Your task to perform on an android device: Show me the alarms in the clock app Image 0: 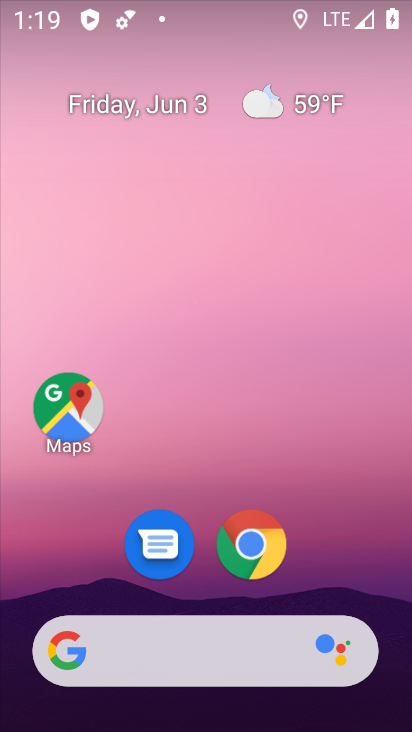
Step 0: drag from (202, 602) to (322, 9)
Your task to perform on an android device: Show me the alarms in the clock app Image 1: 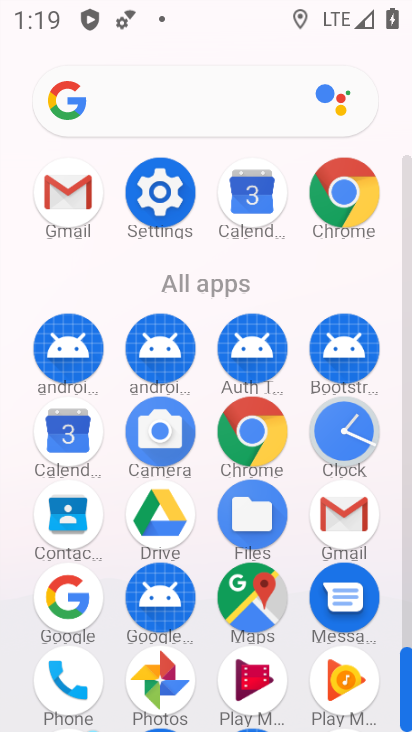
Step 1: click (331, 432)
Your task to perform on an android device: Show me the alarms in the clock app Image 2: 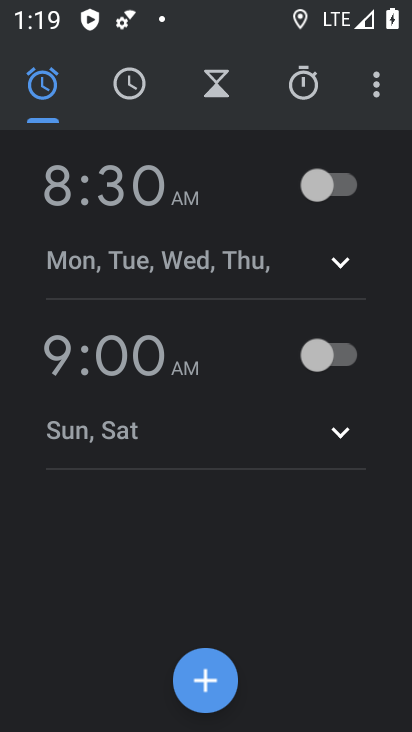
Step 2: click (355, 95)
Your task to perform on an android device: Show me the alarms in the clock app Image 3: 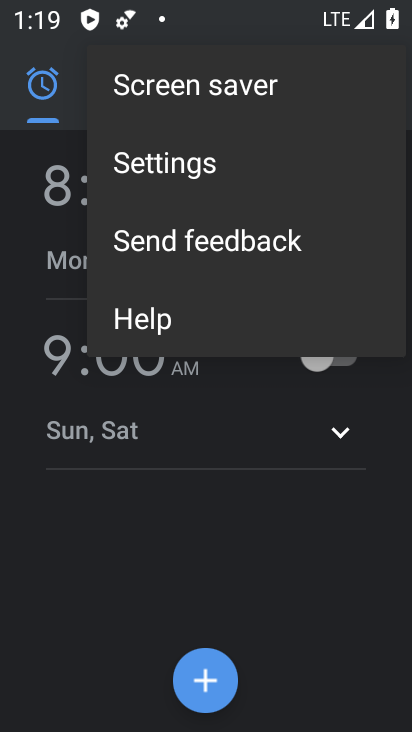
Step 3: click (323, 626)
Your task to perform on an android device: Show me the alarms in the clock app Image 4: 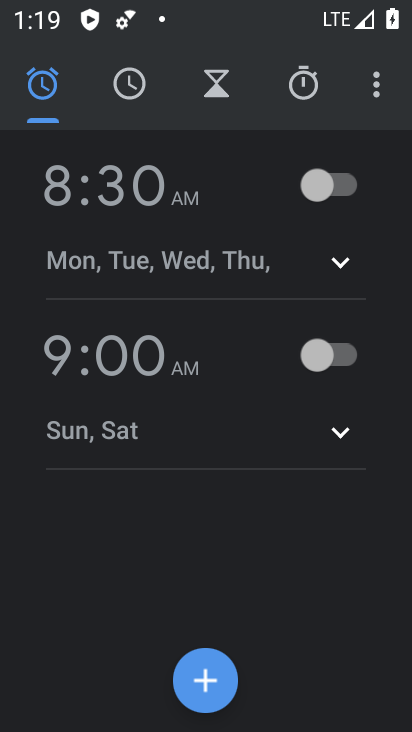
Step 4: click (190, 691)
Your task to perform on an android device: Show me the alarms in the clock app Image 5: 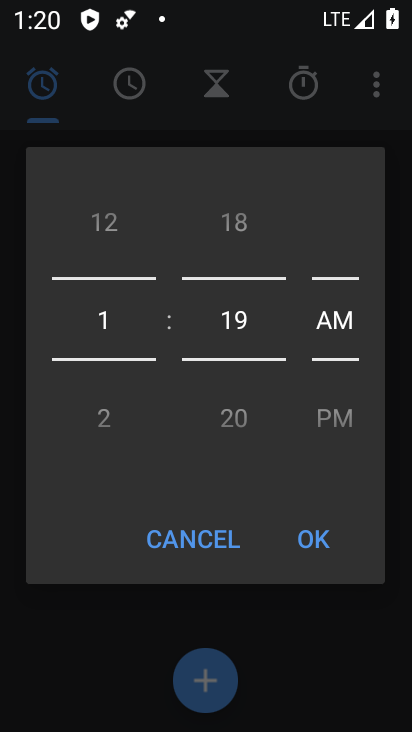
Step 5: task complete